Your task to perform on an android device: turn on location history Image 0: 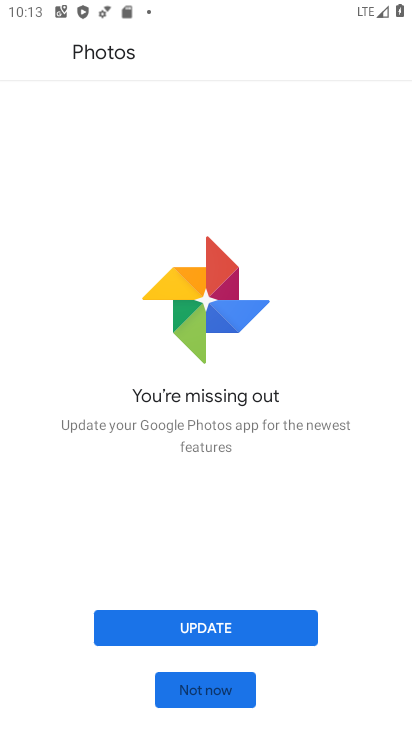
Step 0: press home button
Your task to perform on an android device: turn on location history Image 1: 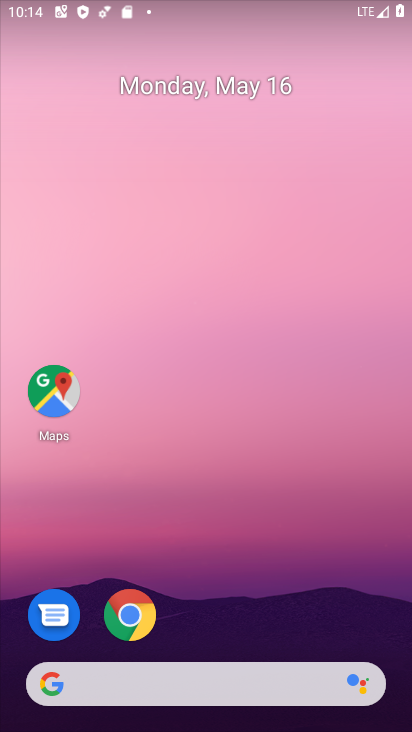
Step 1: drag from (285, 674) to (294, 210)
Your task to perform on an android device: turn on location history Image 2: 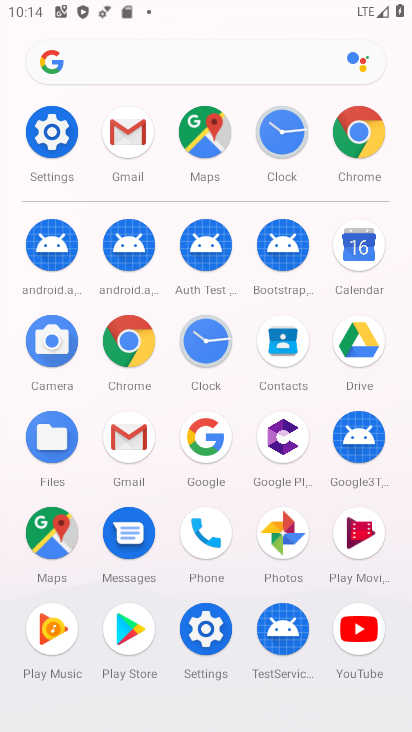
Step 2: click (43, 138)
Your task to perform on an android device: turn on location history Image 3: 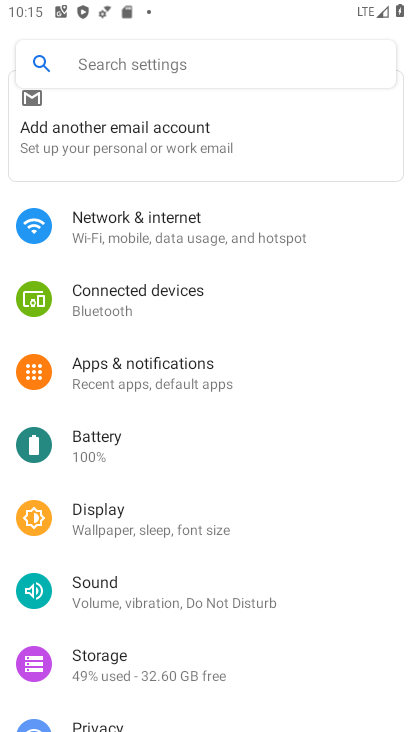
Step 3: drag from (150, 576) to (158, 396)
Your task to perform on an android device: turn on location history Image 4: 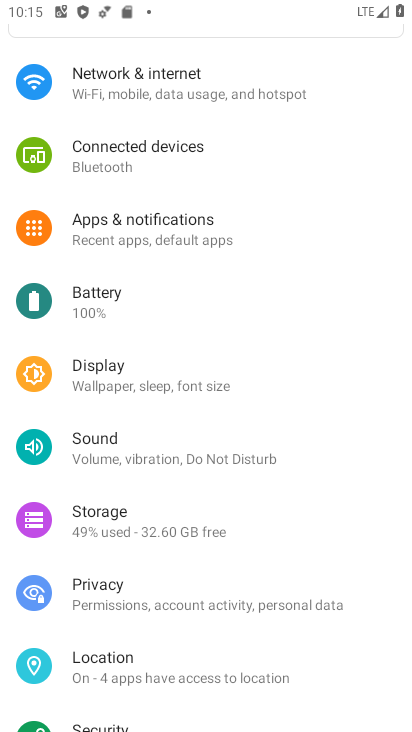
Step 4: click (184, 658)
Your task to perform on an android device: turn on location history Image 5: 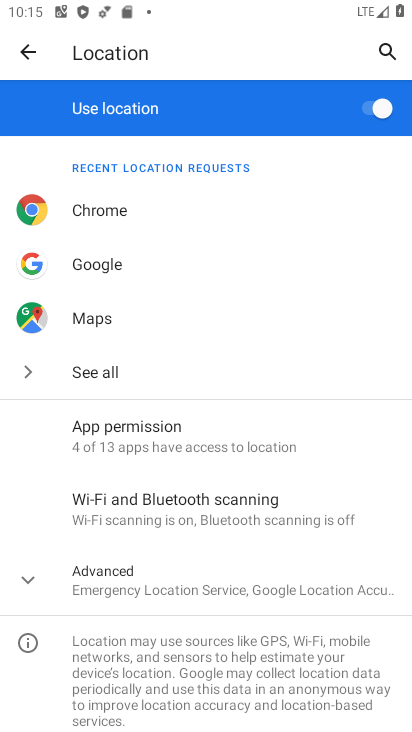
Step 5: click (137, 570)
Your task to perform on an android device: turn on location history Image 6: 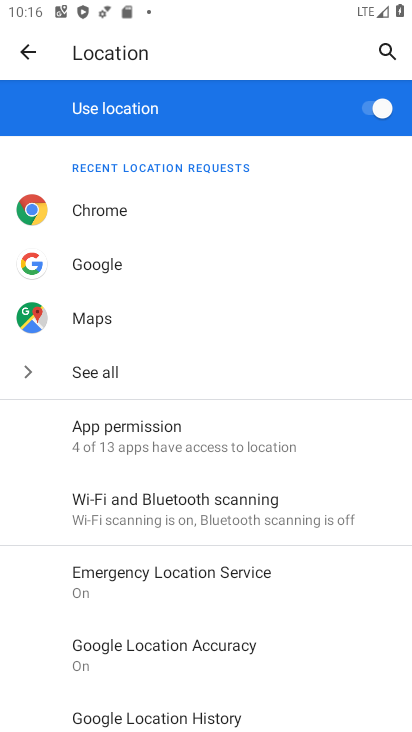
Step 6: drag from (151, 593) to (199, 297)
Your task to perform on an android device: turn on location history Image 7: 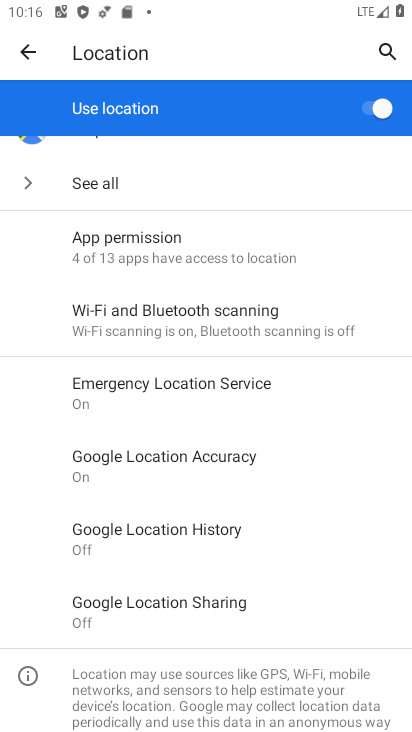
Step 7: click (188, 526)
Your task to perform on an android device: turn on location history Image 8: 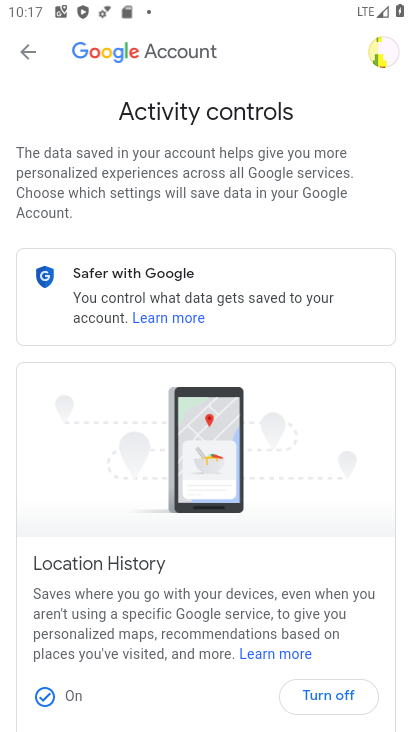
Step 8: click (335, 686)
Your task to perform on an android device: turn on location history Image 9: 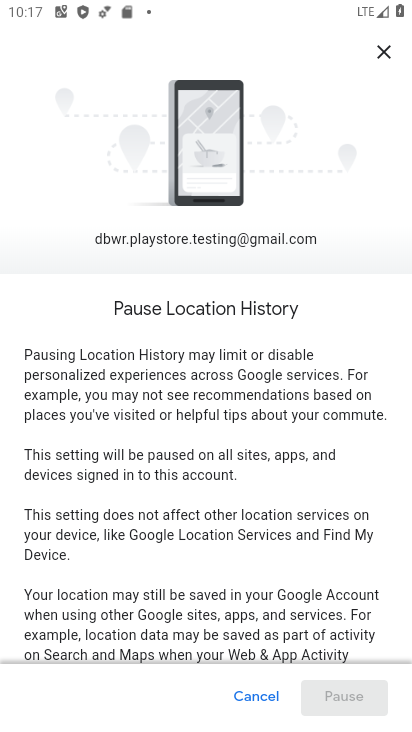
Step 9: drag from (296, 536) to (232, 5)
Your task to perform on an android device: turn on location history Image 10: 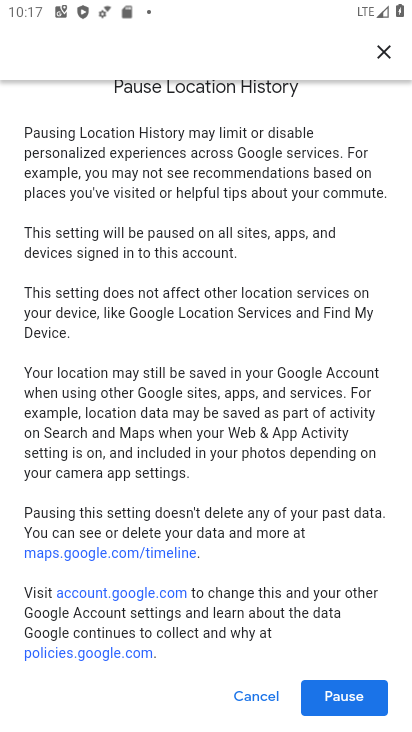
Step 10: click (340, 707)
Your task to perform on an android device: turn on location history Image 11: 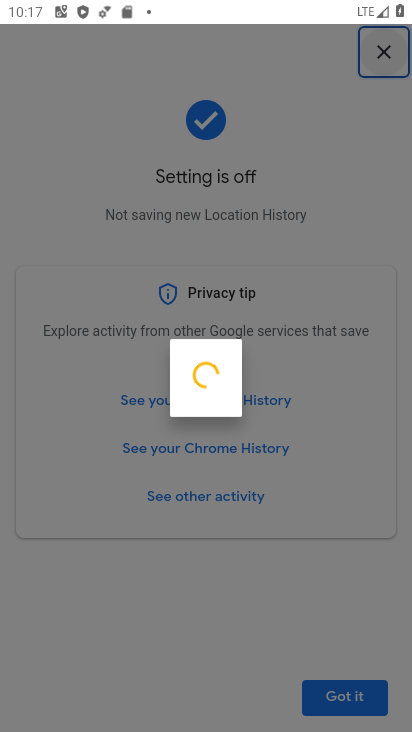
Step 11: click (347, 697)
Your task to perform on an android device: turn on location history Image 12: 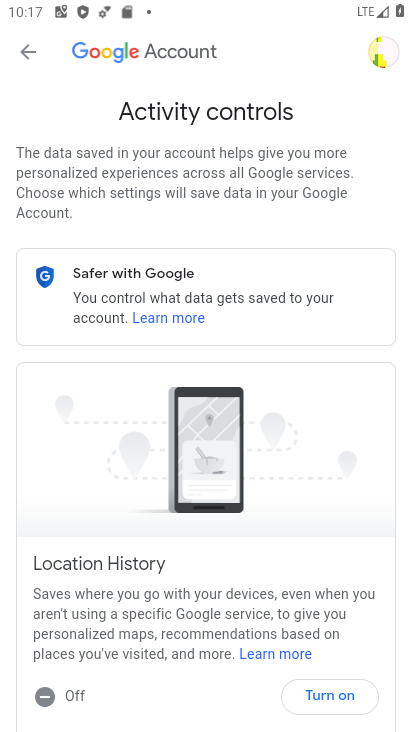
Step 12: task complete